Your task to perform on an android device: Open Yahoo.com Image 0: 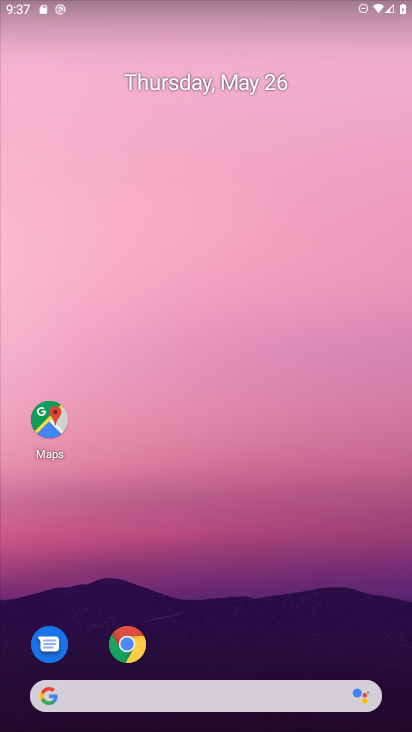
Step 0: click (132, 641)
Your task to perform on an android device: Open Yahoo.com Image 1: 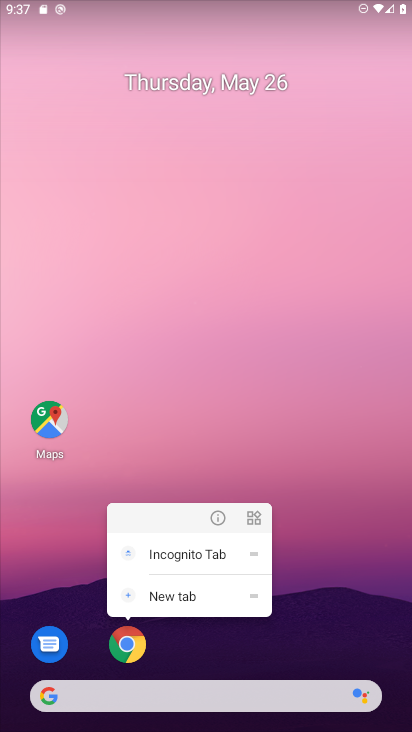
Step 1: click (132, 642)
Your task to perform on an android device: Open Yahoo.com Image 2: 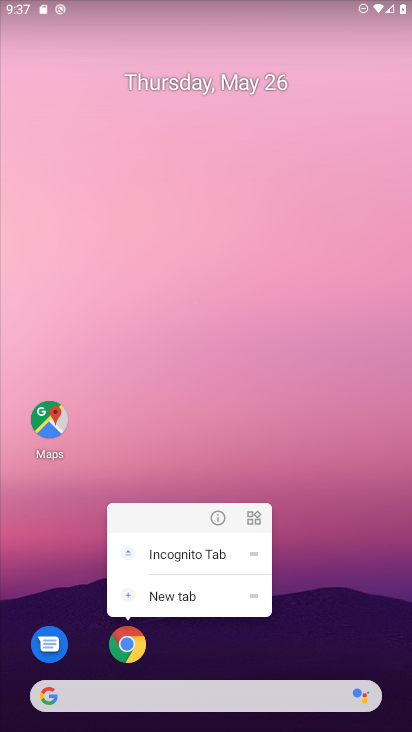
Step 2: click (132, 627)
Your task to perform on an android device: Open Yahoo.com Image 3: 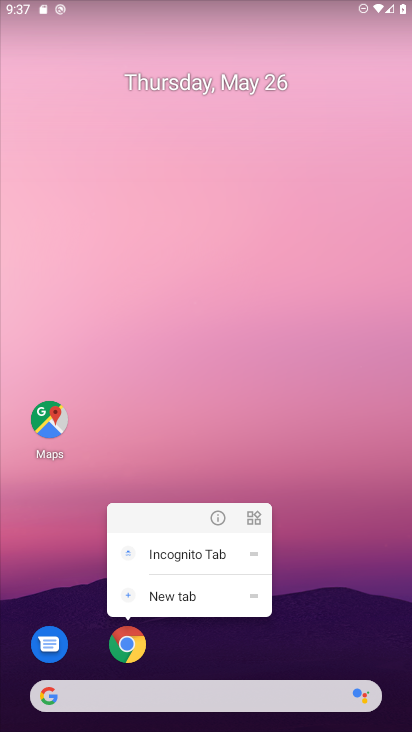
Step 3: click (119, 675)
Your task to perform on an android device: Open Yahoo.com Image 4: 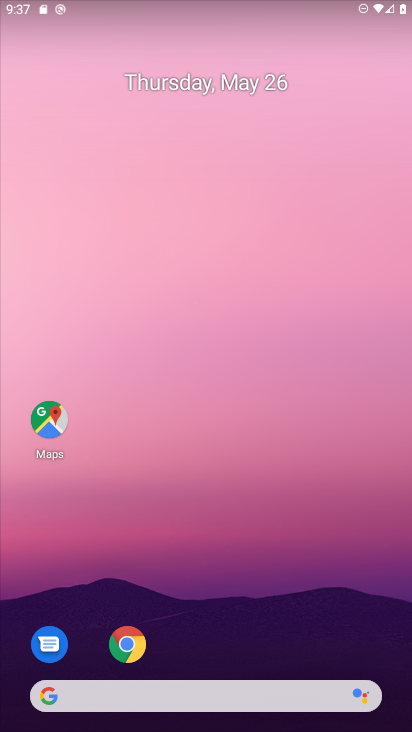
Step 4: click (130, 655)
Your task to perform on an android device: Open Yahoo.com Image 5: 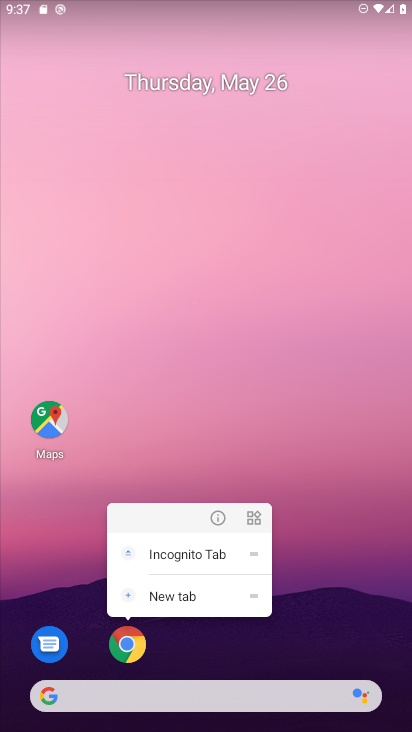
Step 5: click (131, 654)
Your task to perform on an android device: Open Yahoo.com Image 6: 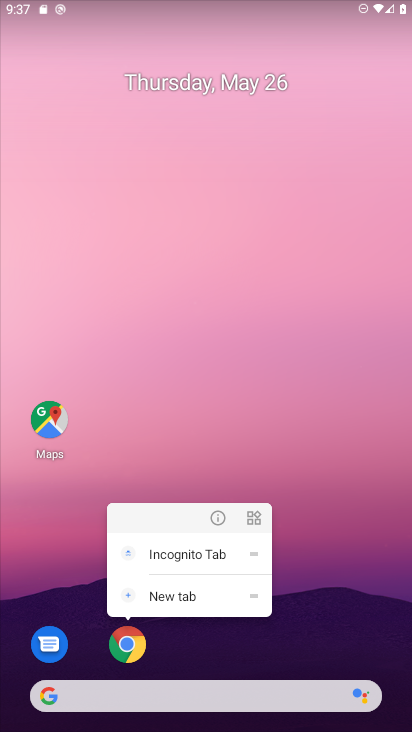
Step 6: click (131, 646)
Your task to perform on an android device: Open Yahoo.com Image 7: 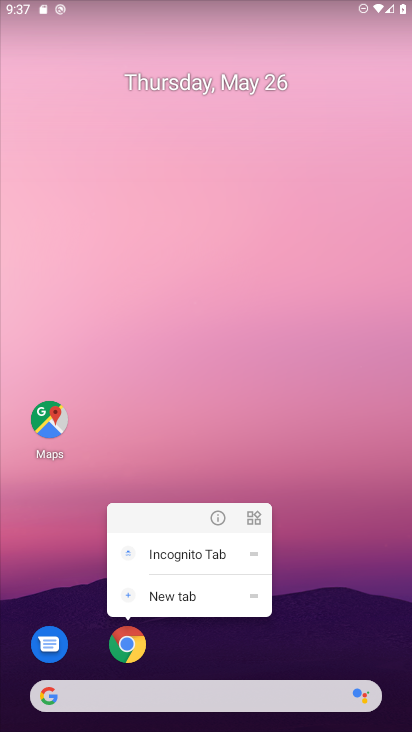
Step 7: click (131, 646)
Your task to perform on an android device: Open Yahoo.com Image 8: 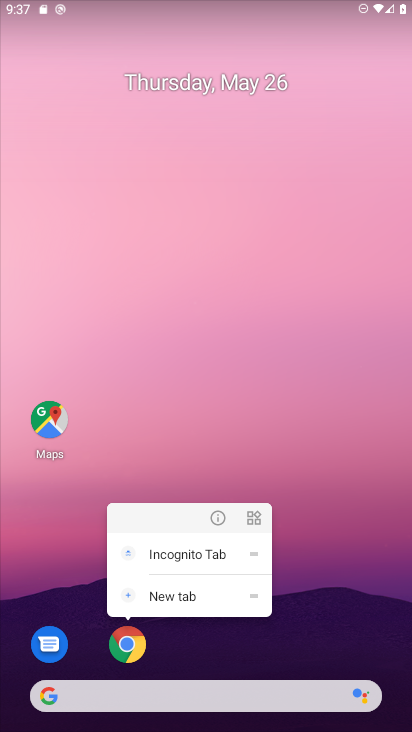
Step 8: click (119, 642)
Your task to perform on an android device: Open Yahoo.com Image 9: 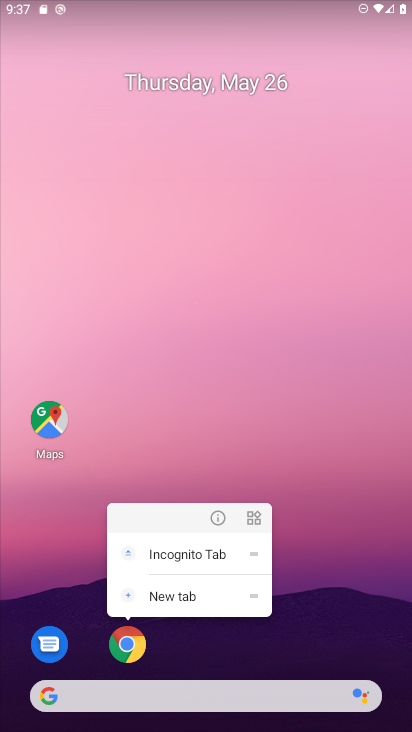
Step 9: click (132, 638)
Your task to perform on an android device: Open Yahoo.com Image 10: 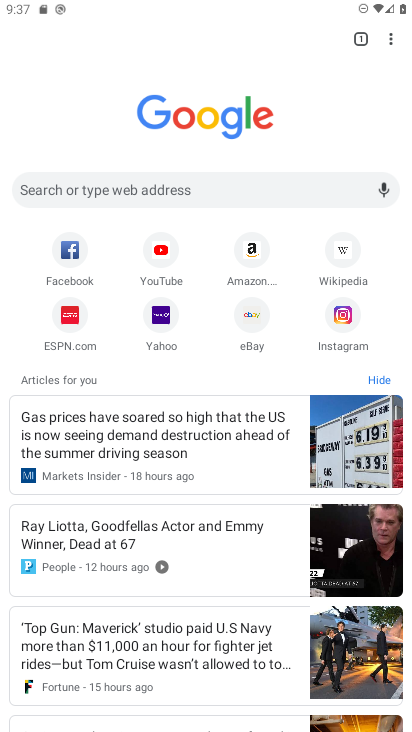
Step 10: click (162, 322)
Your task to perform on an android device: Open Yahoo.com Image 11: 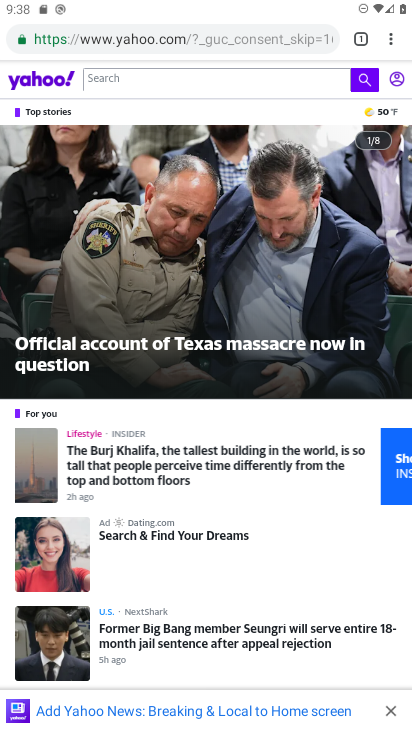
Step 11: task complete